Your task to perform on an android device: Go to accessibility settings Image 0: 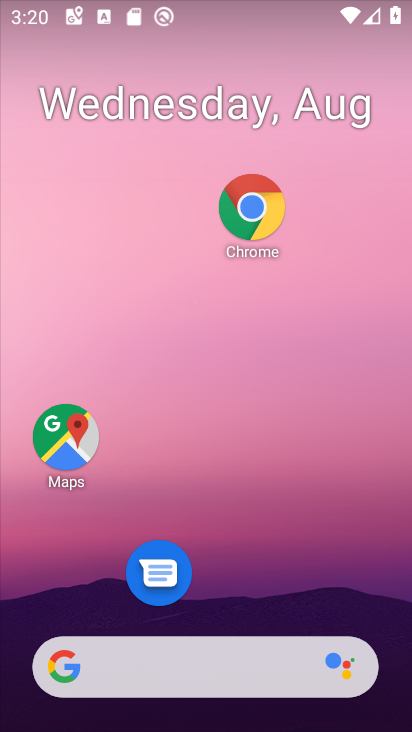
Step 0: drag from (251, 548) to (266, 0)
Your task to perform on an android device: Go to accessibility settings Image 1: 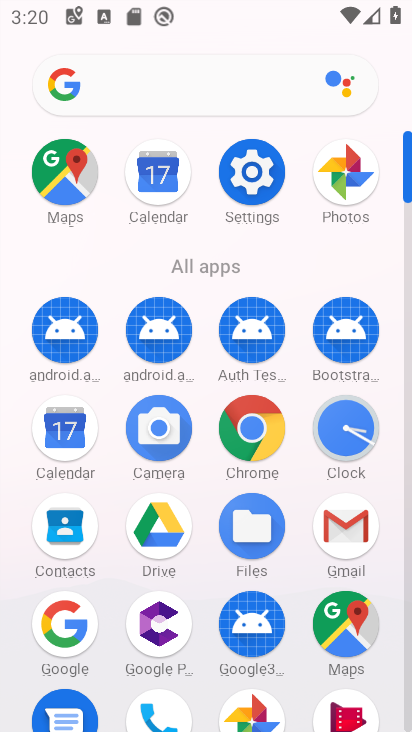
Step 1: click (262, 176)
Your task to perform on an android device: Go to accessibility settings Image 2: 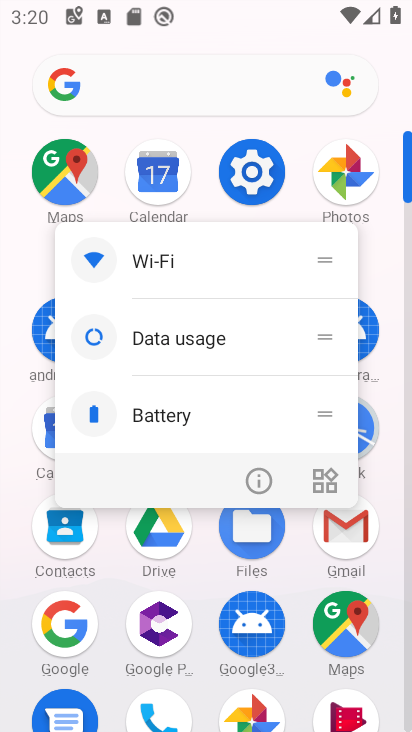
Step 2: click (258, 172)
Your task to perform on an android device: Go to accessibility settings Image 3: 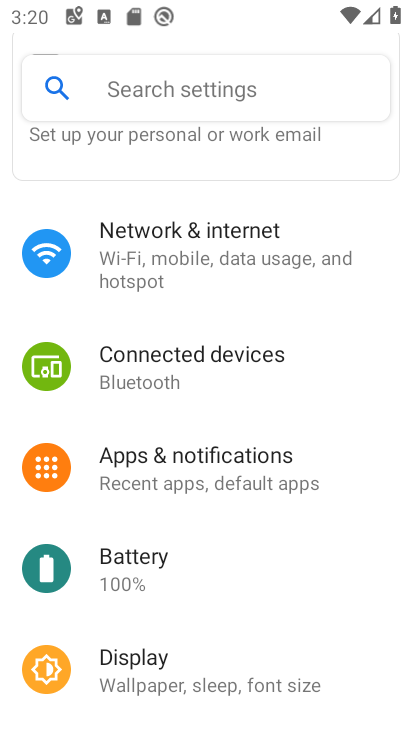
Step 3: drag from (225, 624) to (250, 6)
Your task to perform on an android device: Go to accessibility settings Image 4: 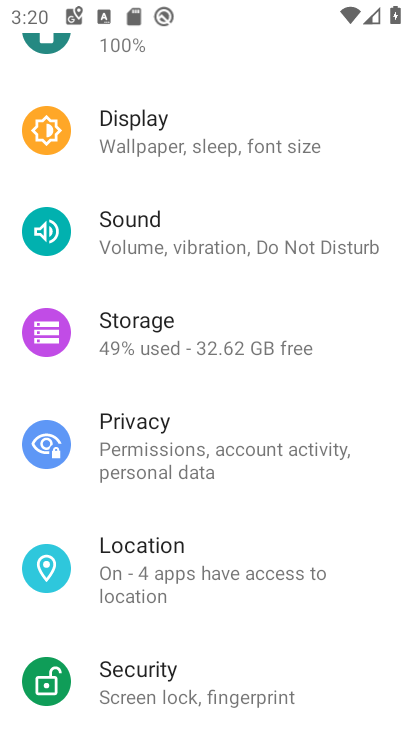
Step 4: drag from (239, 630) to (275, 0)
Your task to perform on an android device: Go to accessibility settings Image 5: 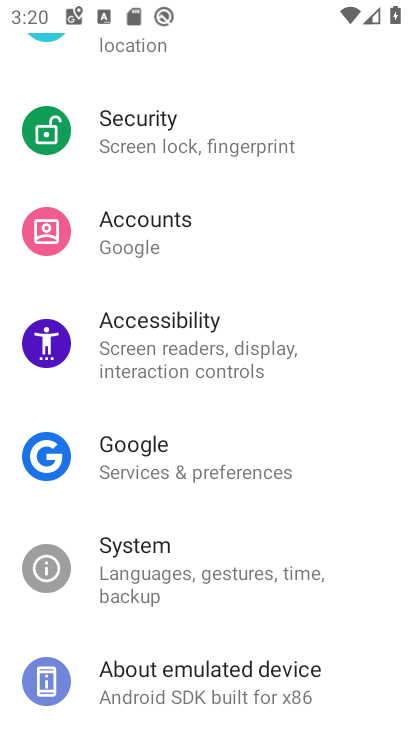
Step 5: click (199, 341)
Your task to perform on an android device: Go to accessibility settings Image 6: 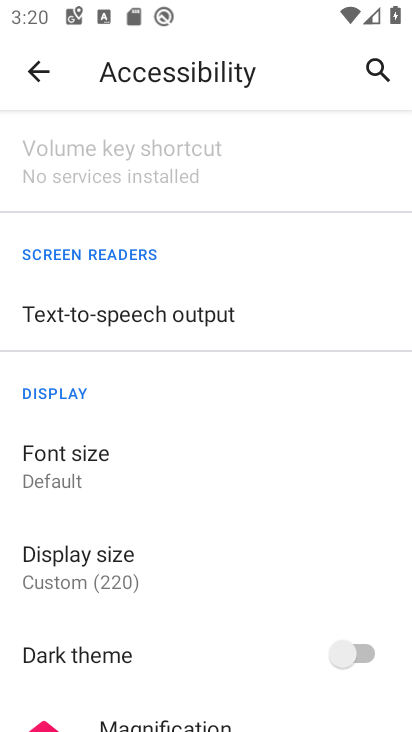
Step 6: task complete